Your task to perform on an android device: see tabs open on other devices in the chrome app Image 0: 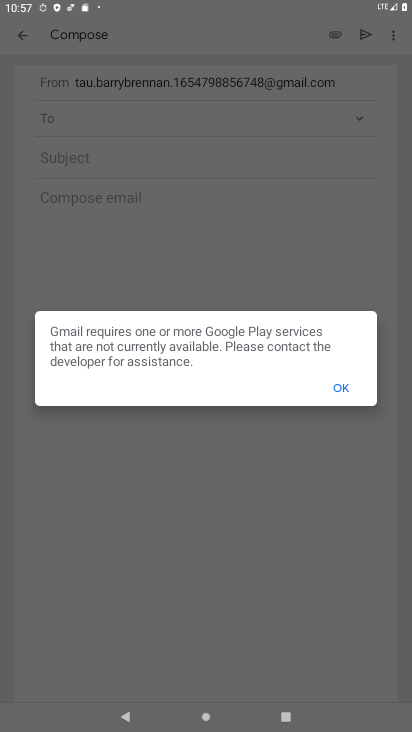
Step 0: click (349, 382)
Your task to perform on an android device: see tabs open on other devices in the chrome app Image 1: 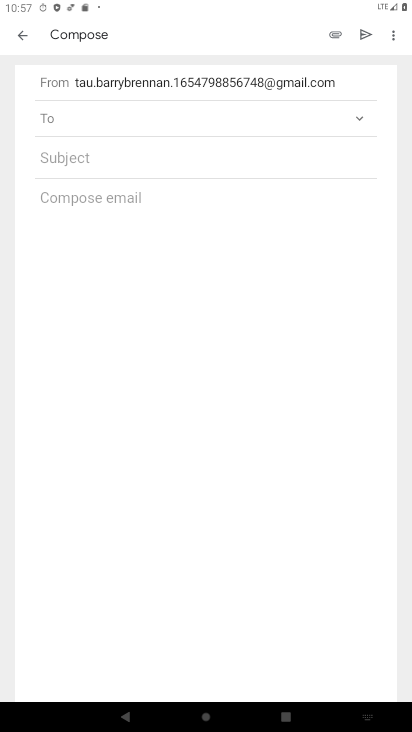
Step 1: click (25, 29)
Your task to perform on an android device: see tabs open on other devices in the chrome app Image 2: 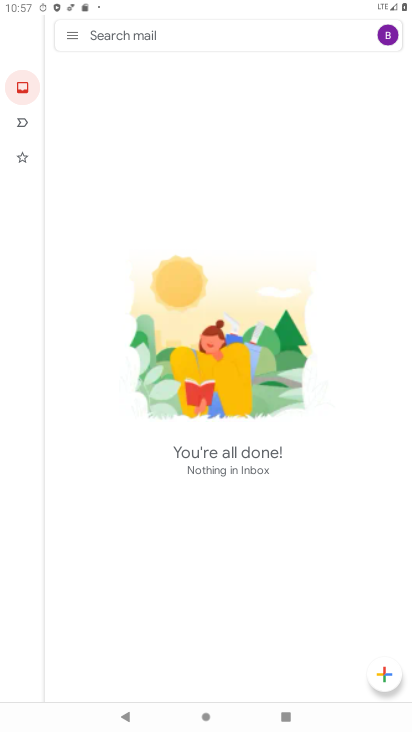
Step 2: press home button
Your task to perform on an android device: see tabs open on other devices in the chrome app Image 3: 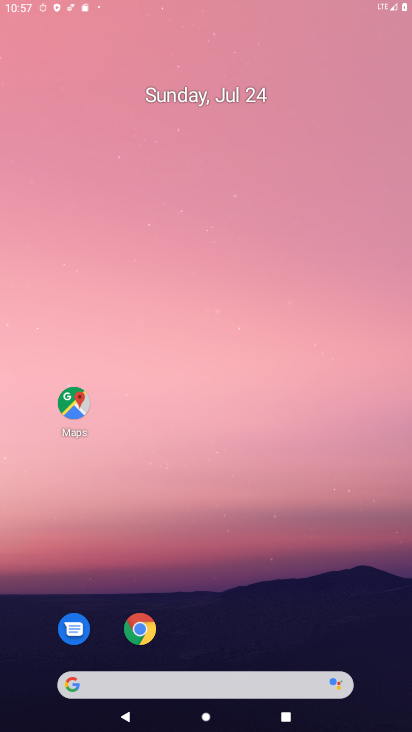
Step 3: click (280, 33)
Your task to perform on an android device: see tabs open on other devices in the chrome app Image 4: 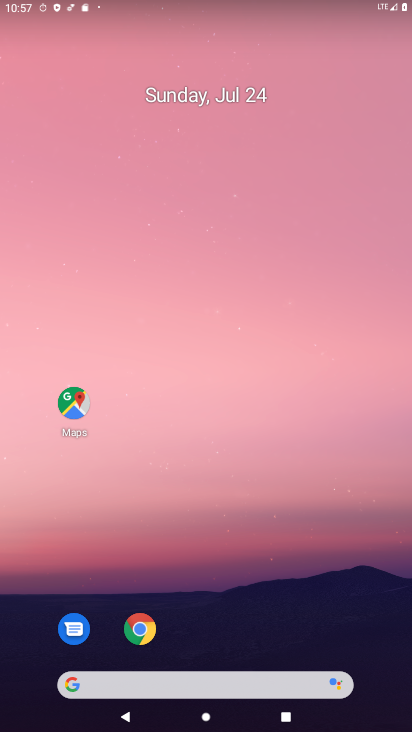
Step 4: drag from (223, 527) to (179, 166)
Your task to perform on an android device: see tabs open on other devices in the chrome app Image 5: 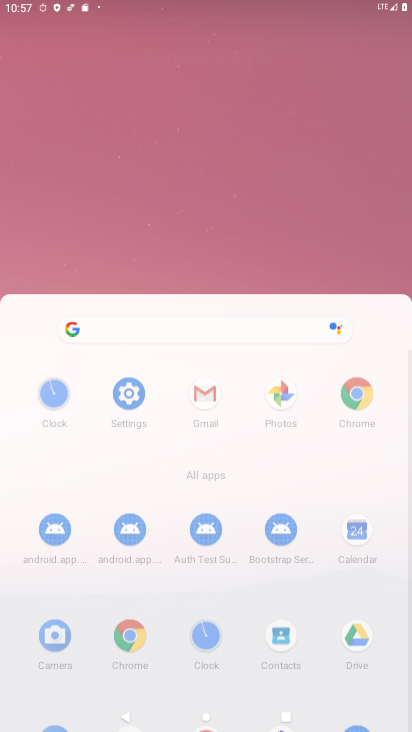
Step 5: drag from (223, 192) to (224, 107)
Your task to perform on an android device: see tabs open on other devices in the chrome app Image 6: 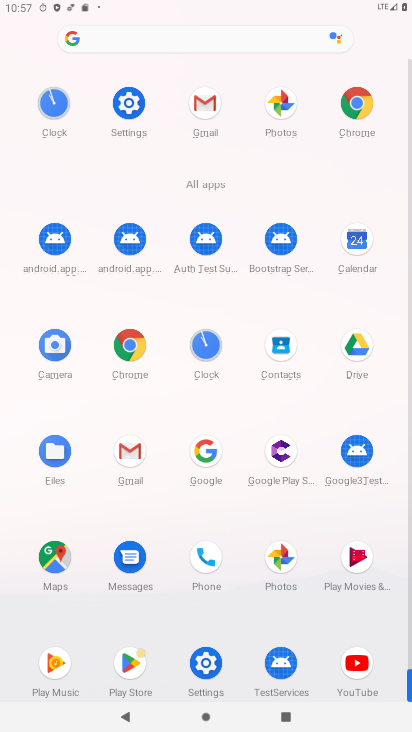
Step 6: drag from (252, 326) to (206, 135)
Your task to perform on an android device: see tabs open on other devices in the chrome app Image 7: 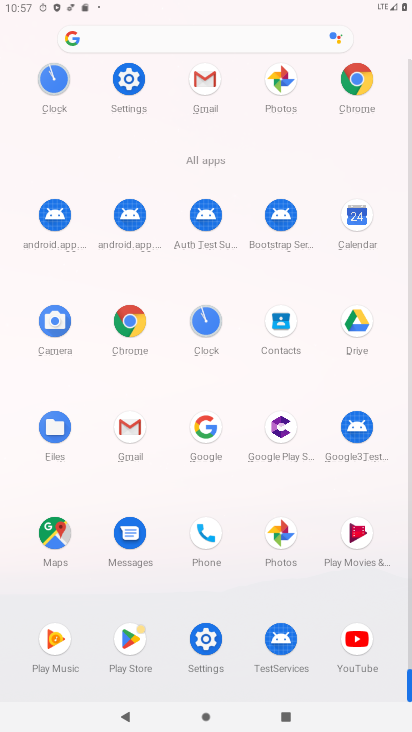
Step 7: click (123, 316)
Your task to perform on an android device: see tabs open on other devices in the chrome app Image 8: 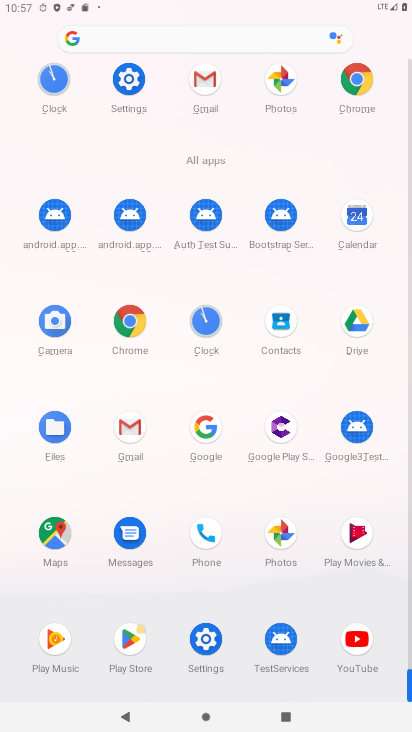
Step 8: click (128, 319)
Your task to perform on an android device: see tabs open on other devices in the chrome app Image 9: 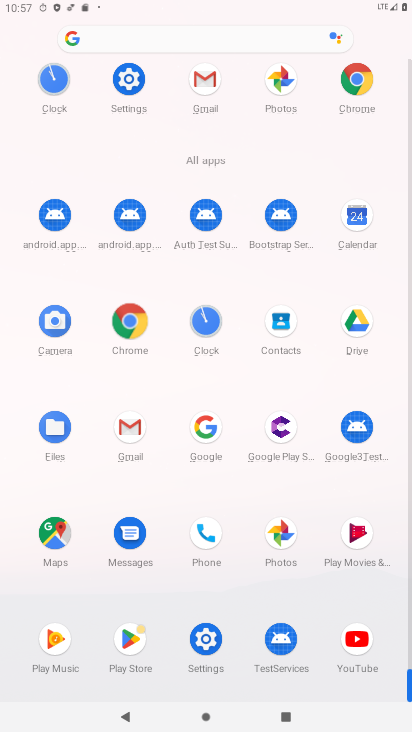
Step 9: click (131, 322)
Your task to perform on an android device: see tabs open on other devices in the chrome app Image 10: 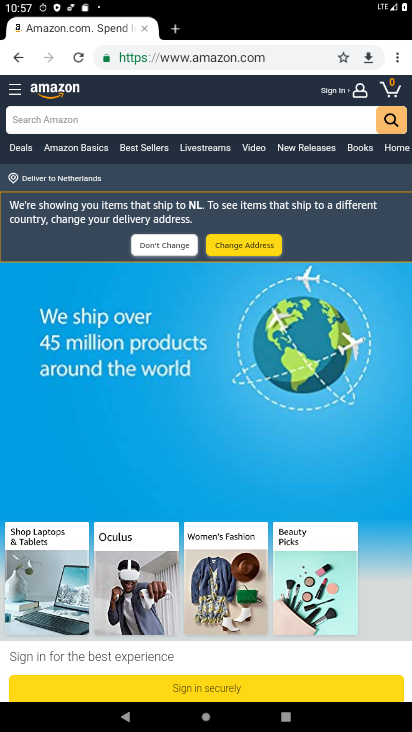
Step 10: drag from (396, 55) to (293, 143)
Your task to perform on an android device: see tabs open on other devices in the chrome app Image 11: 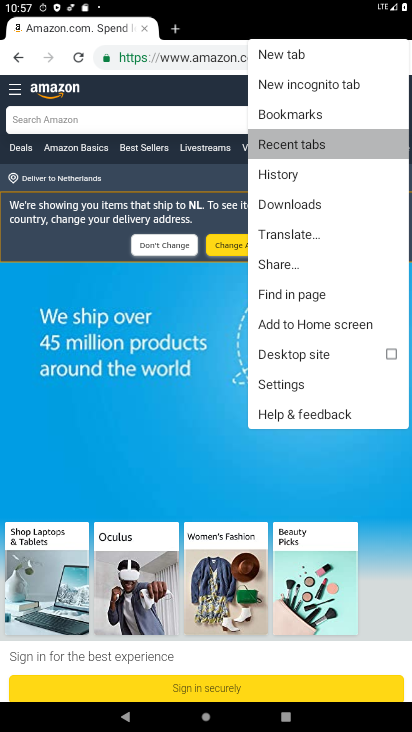
Step 11: click (302, 137)
Your task to perform on an android device: see tabs open on other devices in the chrome app Image 12: 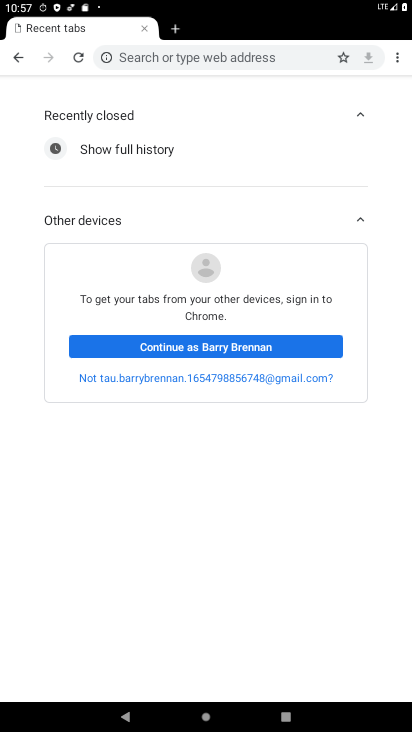
Step 12: click (358, 223)
Your task to perform on an android device: see tabs open on other devices in the chrome app Image 13: 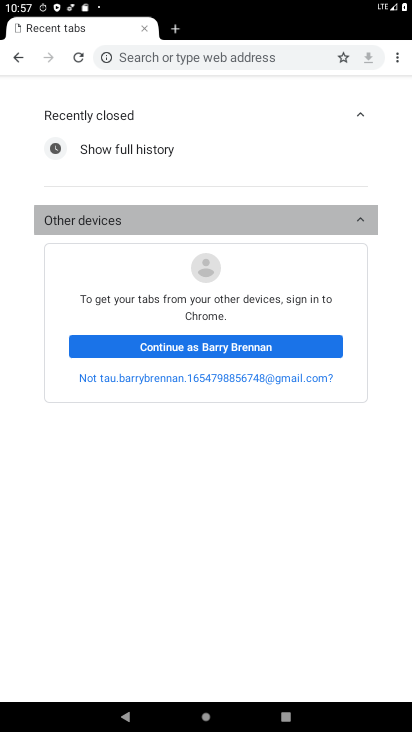
Step 13: click (362, 221)
Your task to perform on an android device: see tabs open on other devices in the chrome app Image 14: 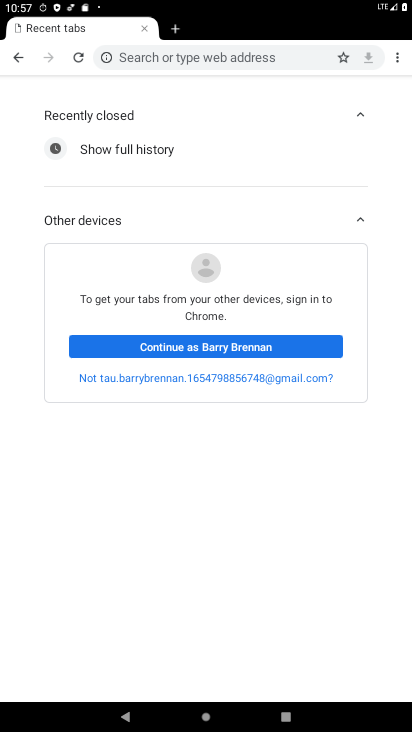
Step 14: task complete